Your task to perform on an android device: turn off location Image 0: 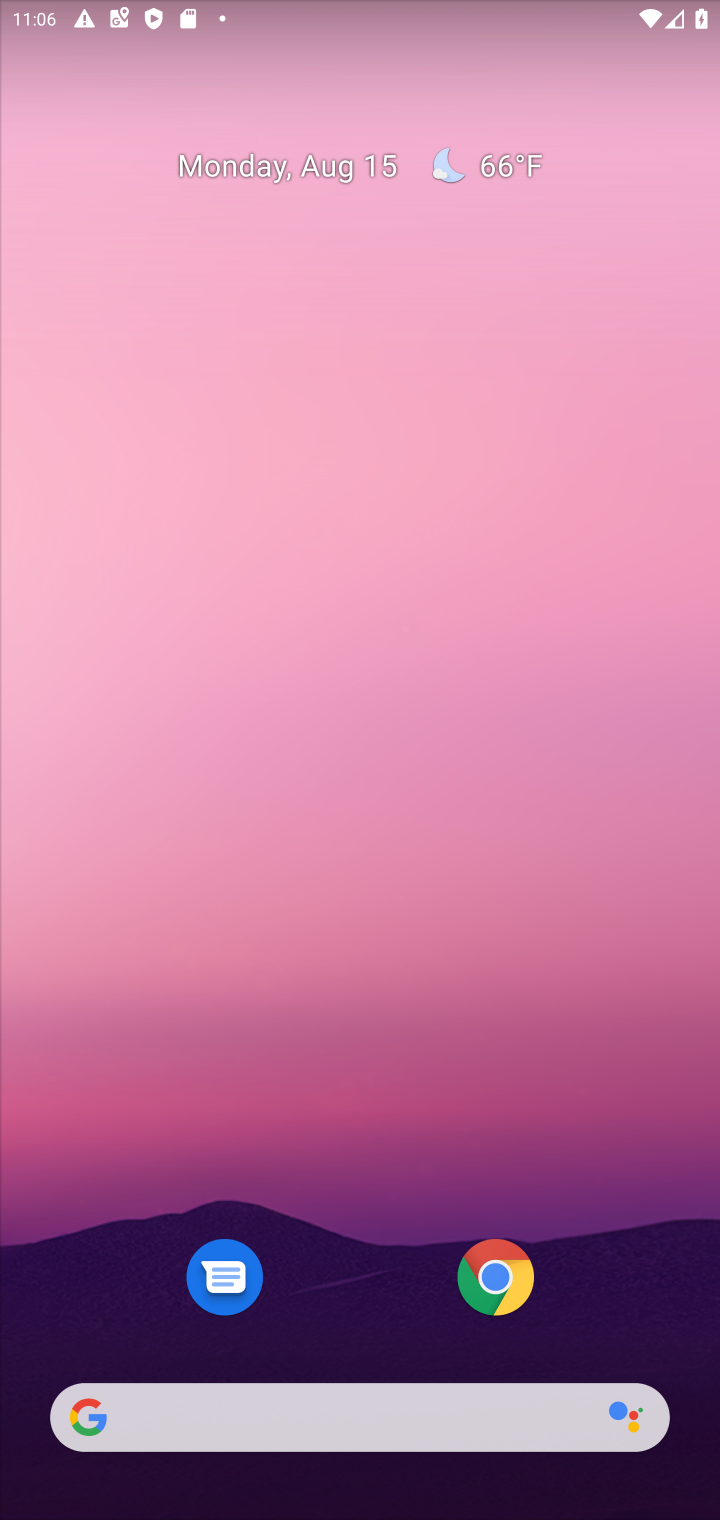
Step 0: drag from (316, 1242) to (297, 7)
Your task to perform on an android device: turn off location Image 1: 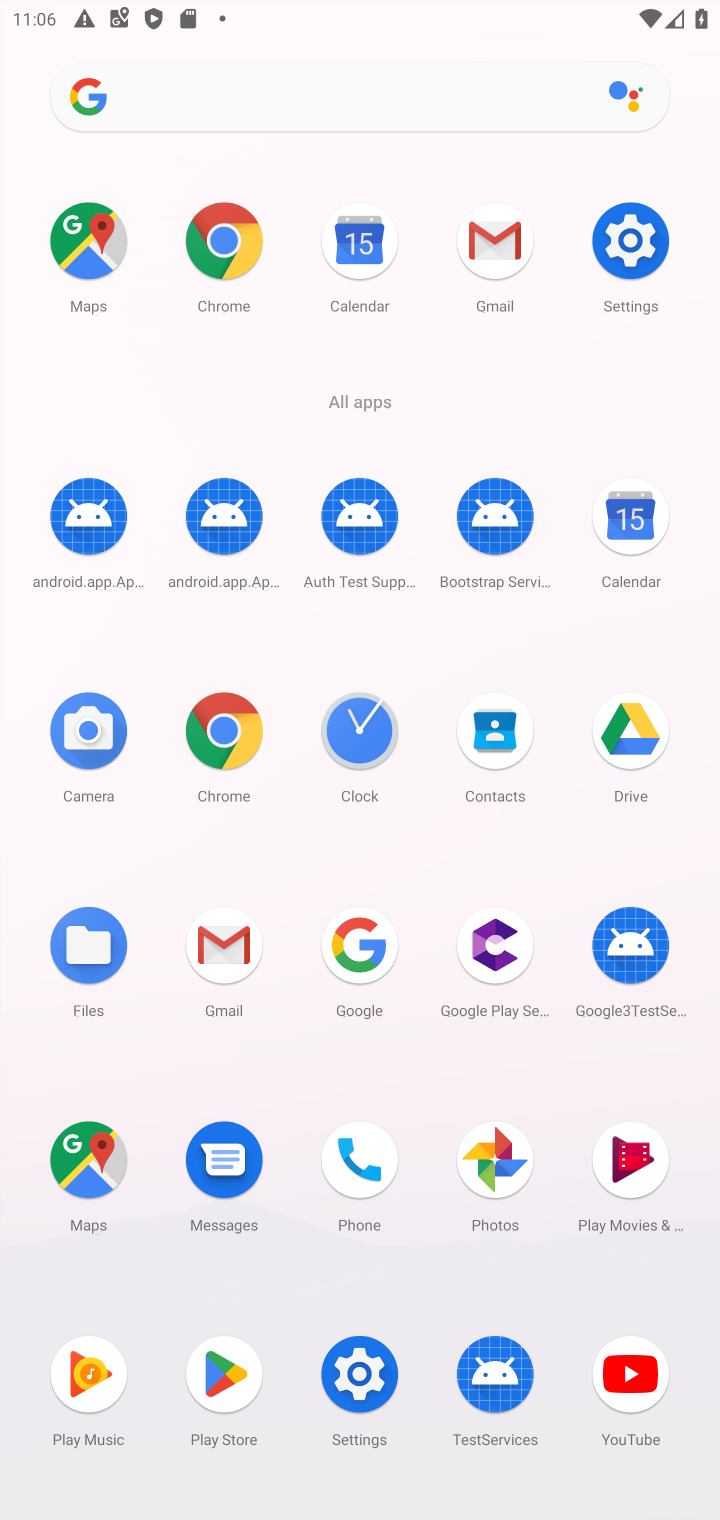
Step 1: click (625, 258)
Your task to perform on an android device: turn off location Image 2: 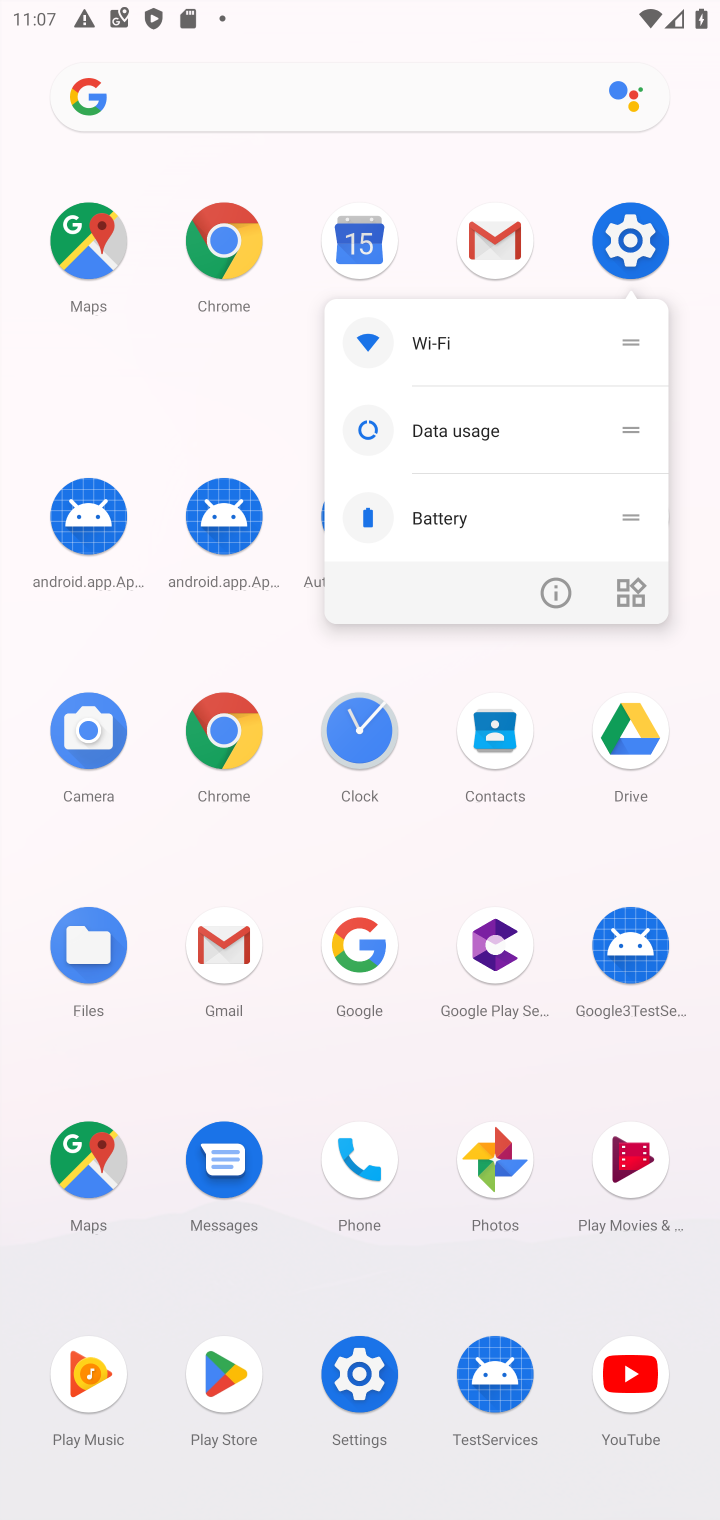
Step 2: click (639, 235)
Your task to perform on an android device: turn off location Image 3: 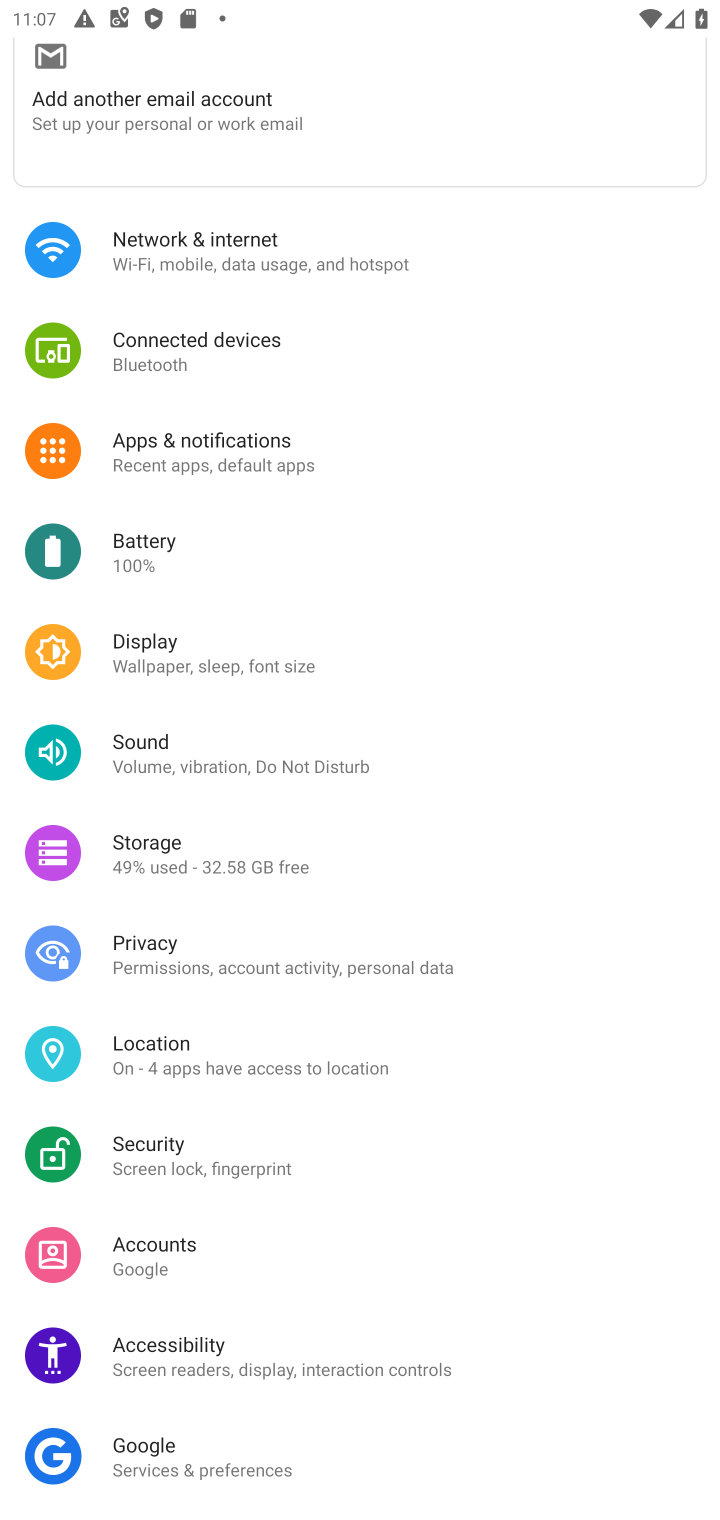
Step 3: click (230, 1071)
Your task to perform on an android device: turn off location Image 4: 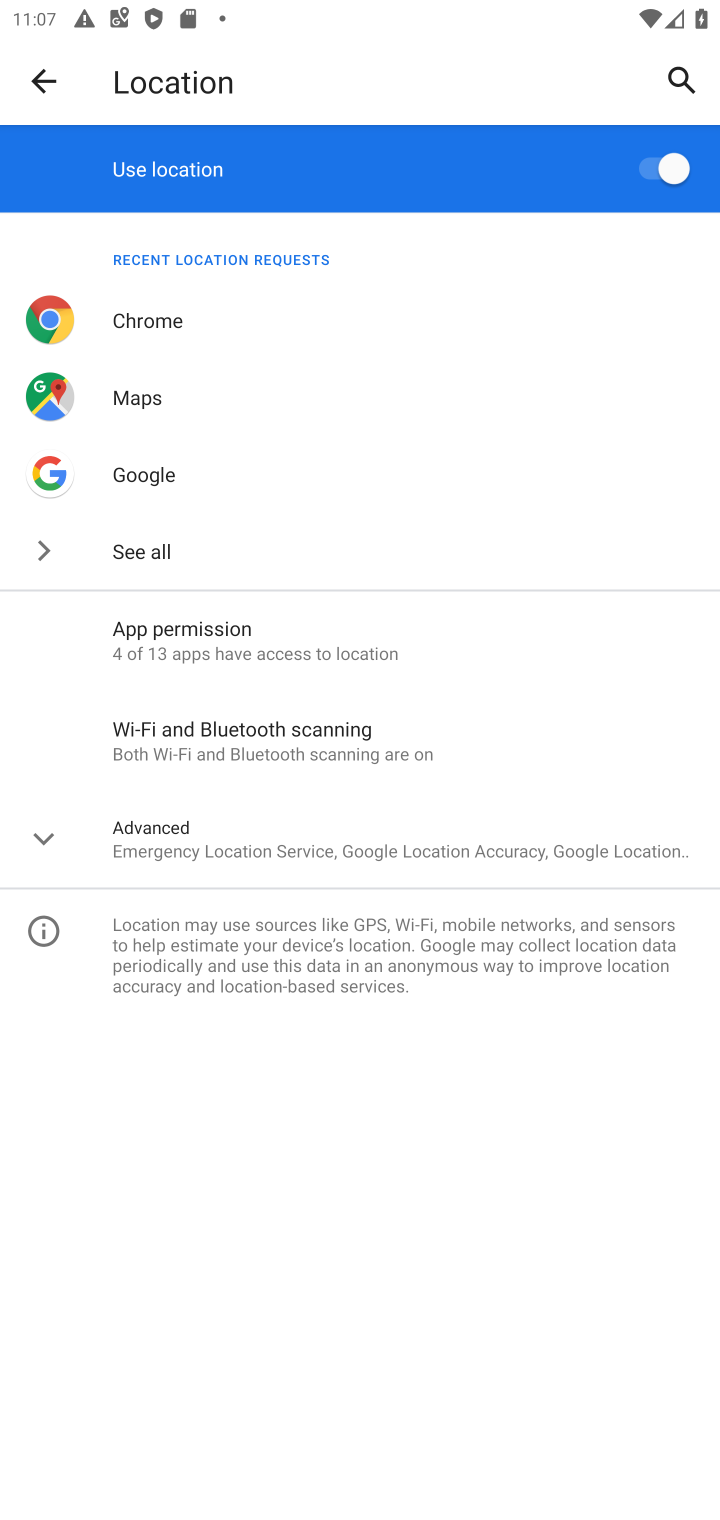
Step 4: click (669, 182)
Your task to perform on an android device: turn off location Image 5: 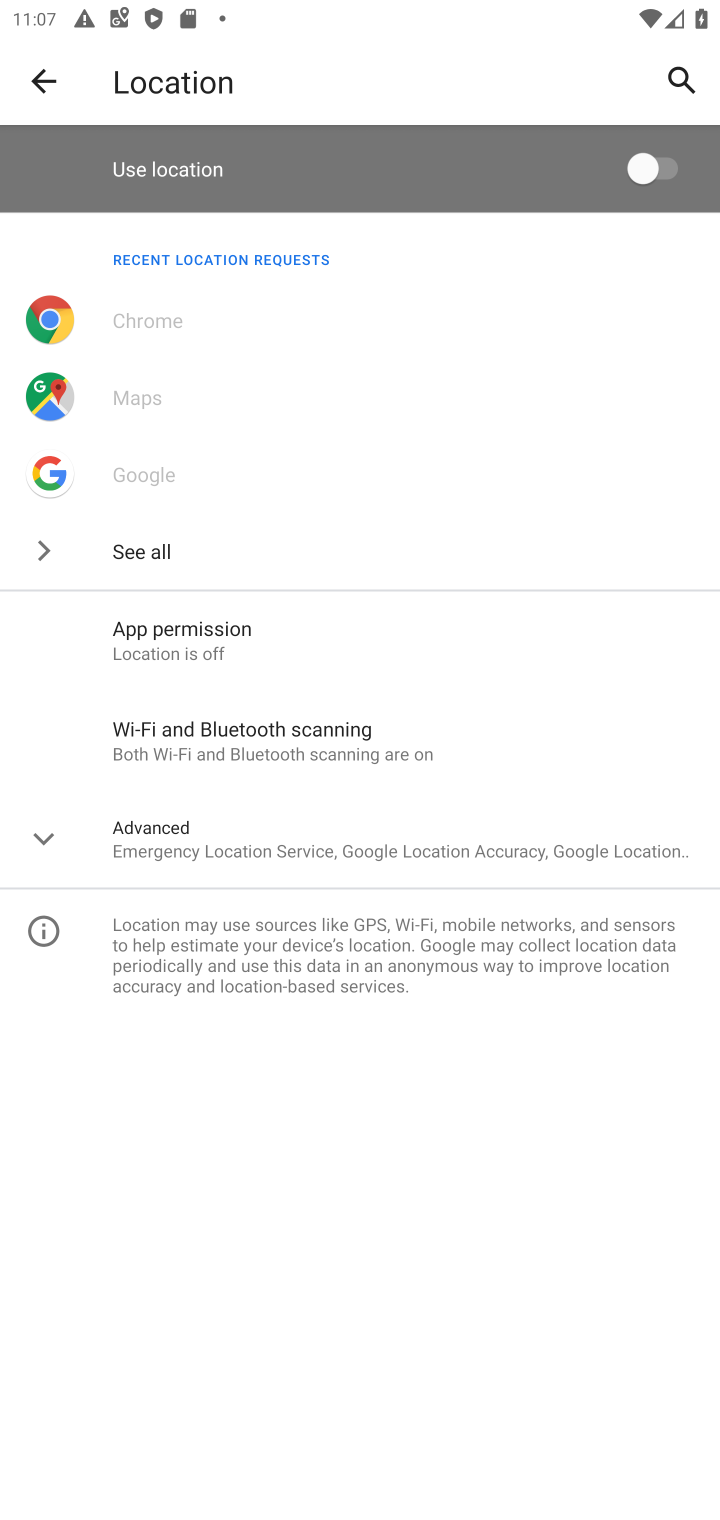
Step 5: task complete